Your task to perform on an android device: What's the weather going to be tomorrow? Image 0: 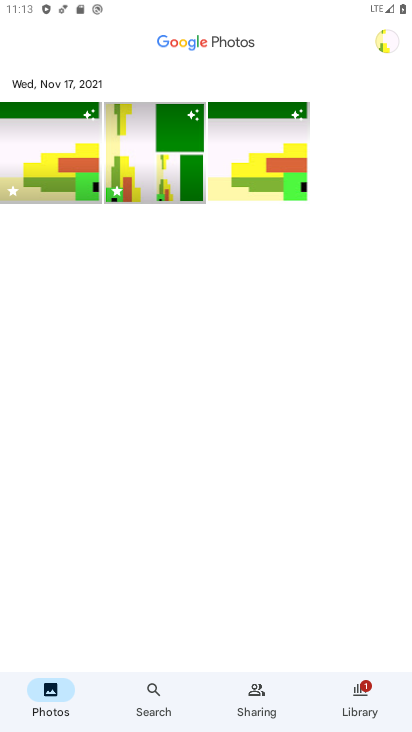
Step 0: press home button
Your task to perform on an android device: What's the weather going to be tomorrow? Image 1: 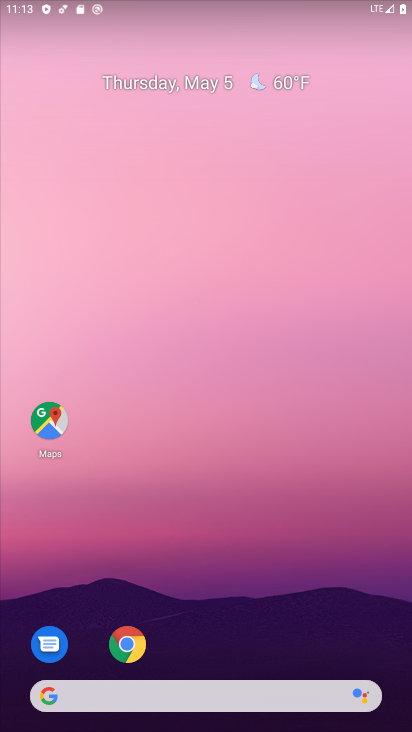
Step 1: drag from (377, 644) to (347, 152)
Your task to perform on an android device: What's the weather going to be tomorrow? Image 2: 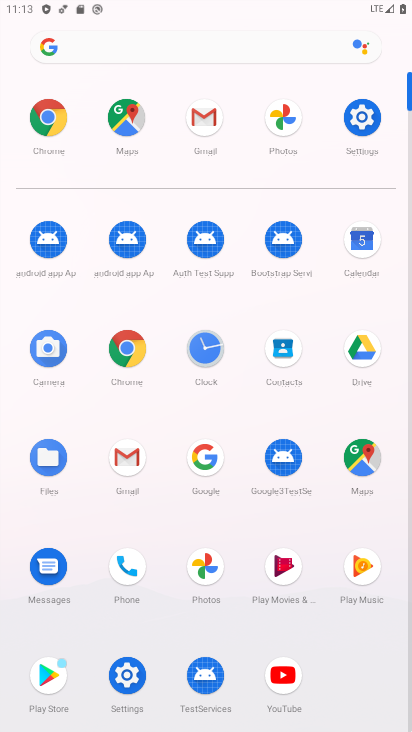
Step 2: click (129, 351)
Your task to perform on an android device: What's the weather going to be tomorrow? Image 3: 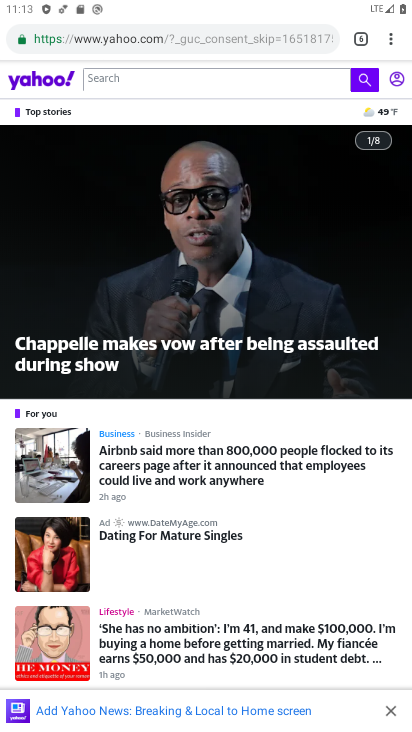
Step 3: click (250, 36)
Your task to perform on an android device: What's the weather going to be tomorrow? Image 4: 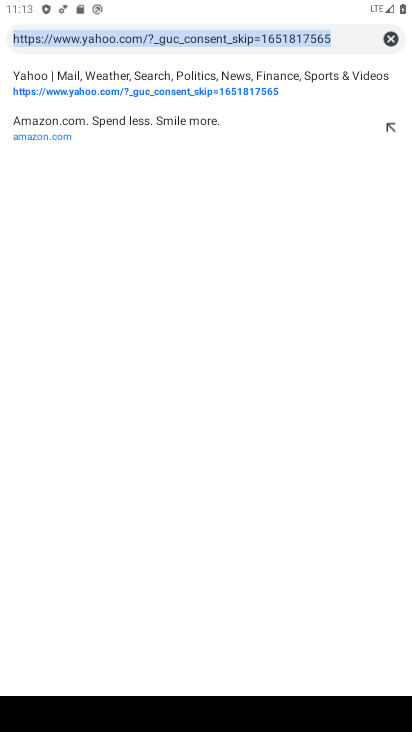
Step 4: click (392, 42)
Your task to perform on an android device: What's the weather going to be tomorrow? Image 5: 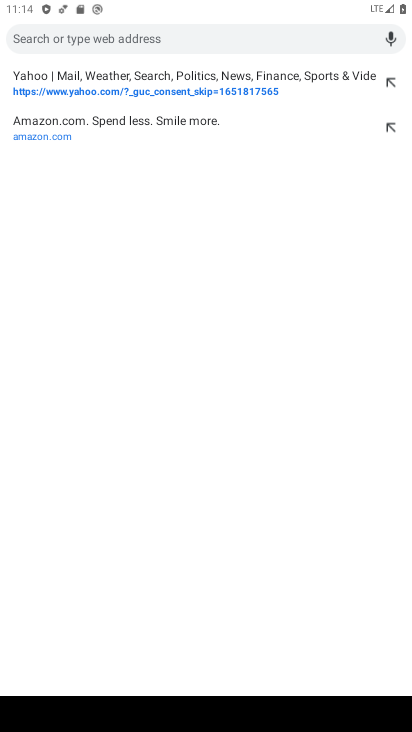
Step 5: type "what's the weather going to be tomorrow"
Your task to perform on an android device: What's the weather going to be tomorrow? Image 6: 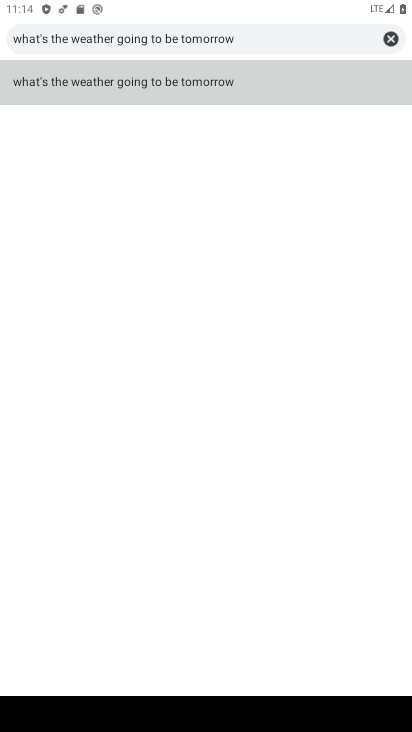
Step 6: click (119, 68)
Your task to perform on an android device: What's the weather going to be tomorrow? Image 7: 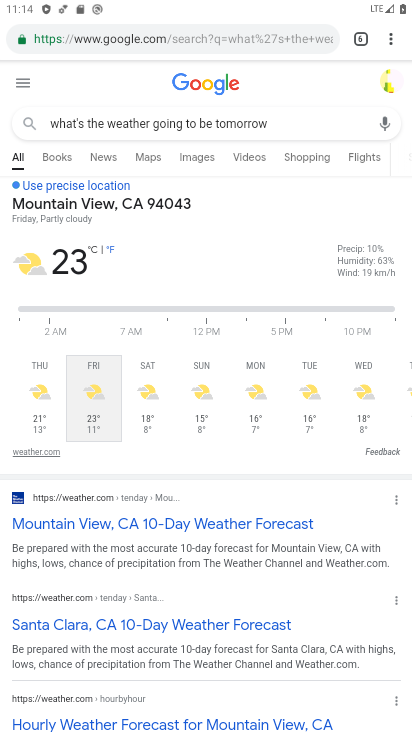
Step 7: task complete